Your task to perform on an android device: Go to Reddit.com Image 0: 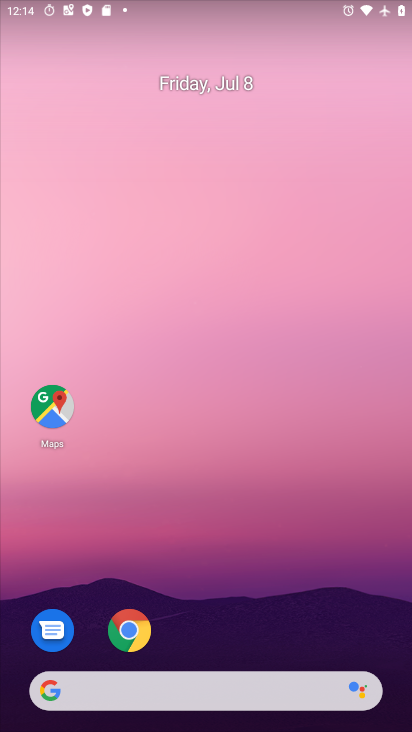
Step 0: click (130, 626)
Your task to perform on an android device: Go to Reddit.com Image 1: 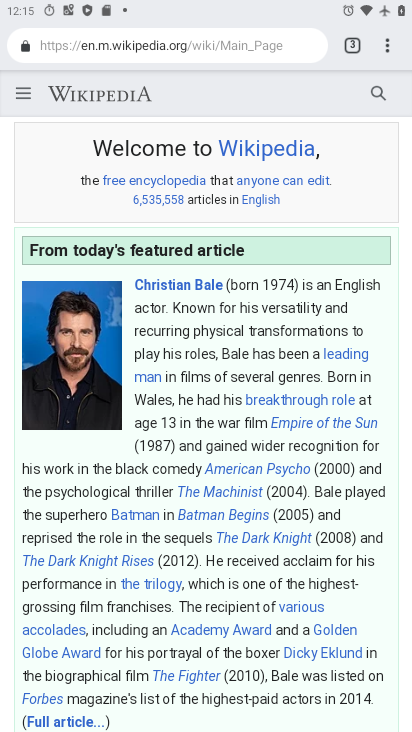
Step 1: click (351, 39)
Your task to perform on an android device: Go to Reddit.com Image 2: 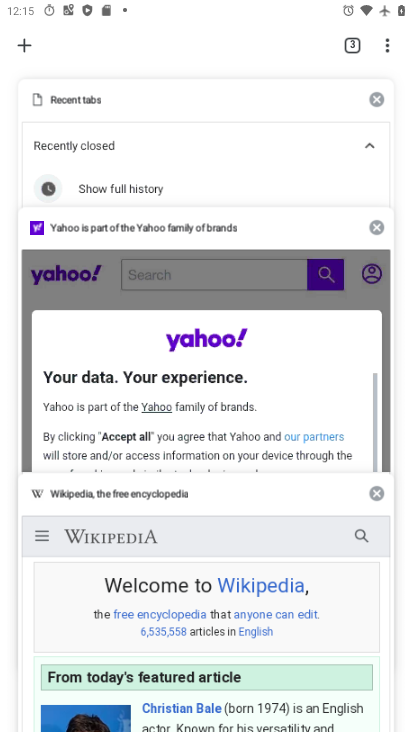
Step 2: click (24, 43)
Your task to perform on an android device: Go to Reddit.com Image 3: 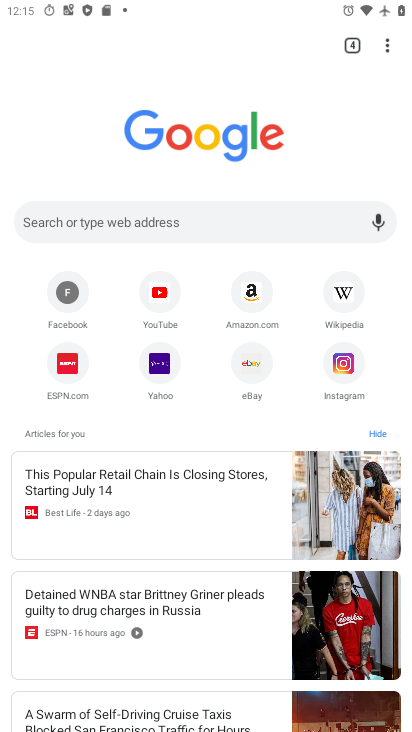
Step 3: click (208, 208)
Your task to perform on an android device: Go to Reddit.com Image 4: 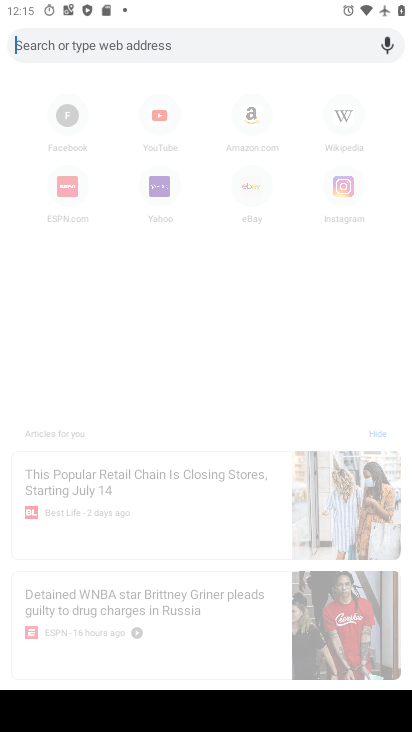
Step 4: type "Reddit.com"
Your task to perform on an android device: Go to Reddit.com Image 5: 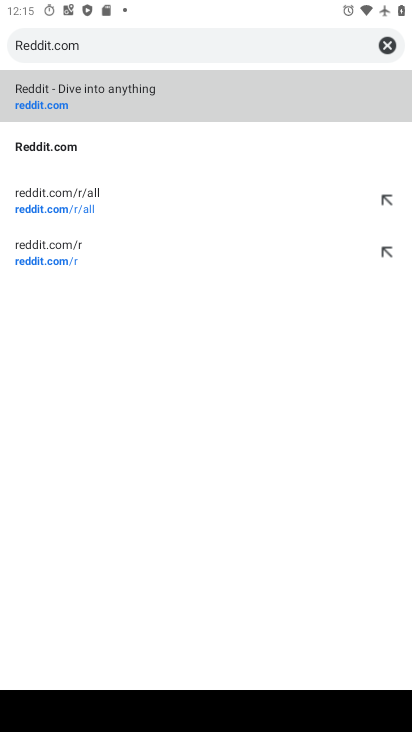
Step 5: click (119, 99)
Your task to perform on an android device: Go to Reddit.com Image 6: 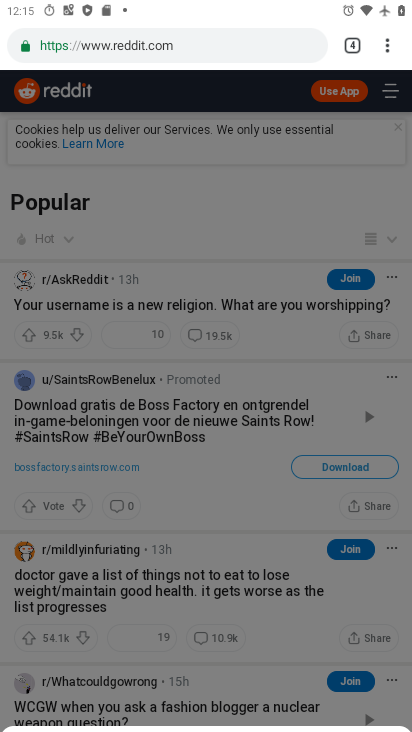
Step 6: task complete